Your task to perform on an android device: Go to CNN.com Image 0: 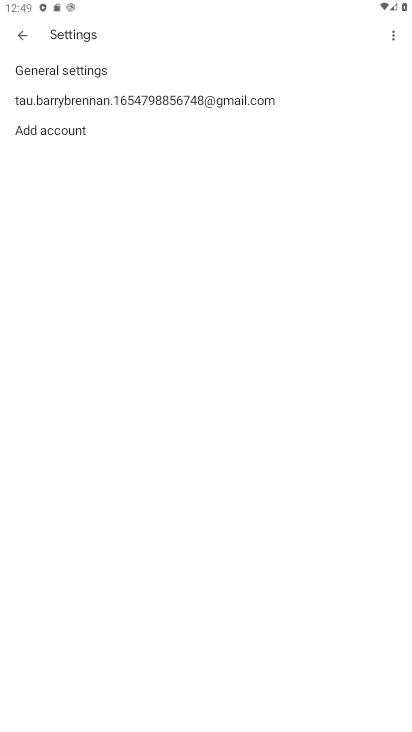
Step 0: press home button
Your task to perform on an android device: Go to CNN.com Image 1: 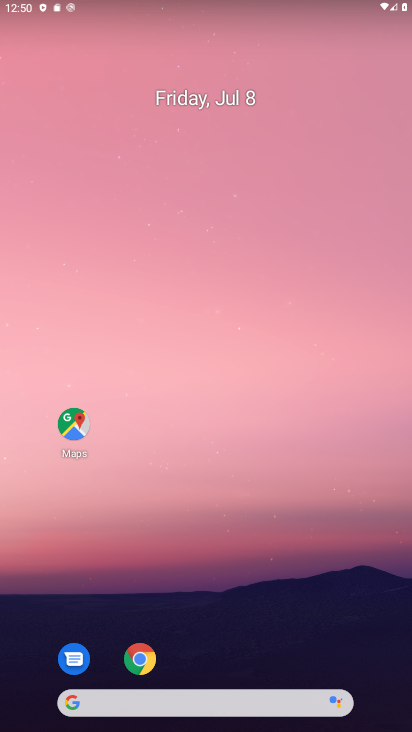
Step 1: drag from (244, 584) to (165, 40)
Your task to perform on an android device: Go to CNN.com Image 2: 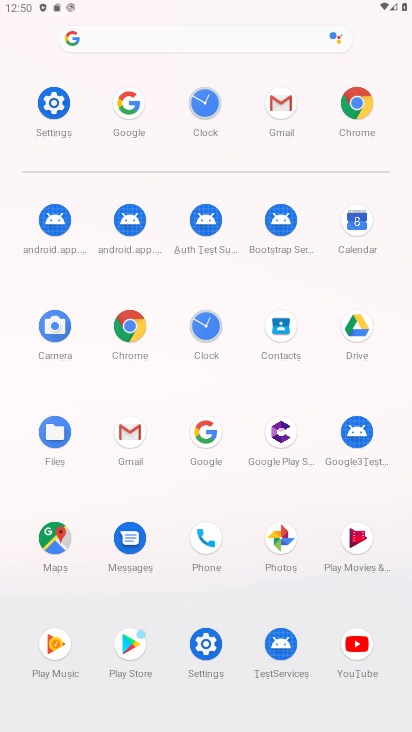
Step 2: click (145, 339)
Your task to perform on an android device: Go to CNN.com Image 3: 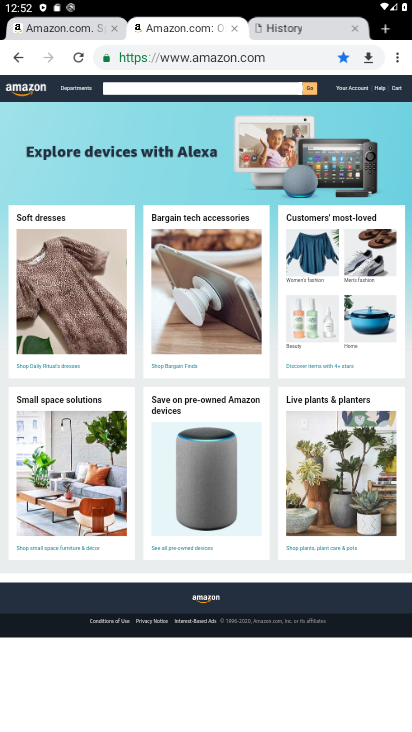
Step 3: press home button
Your task to perform on an android device: Go to CNN.com Image 4: 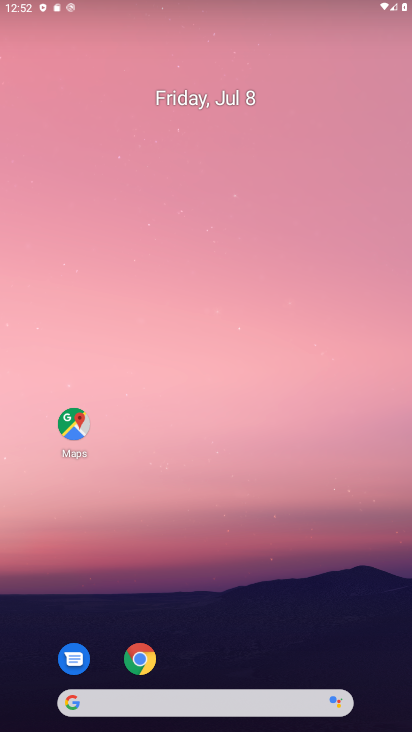
Step 4: drag from (212, 501) to (260, 33)
Your task to perform on an android device: Go to CNN.com Image 5: 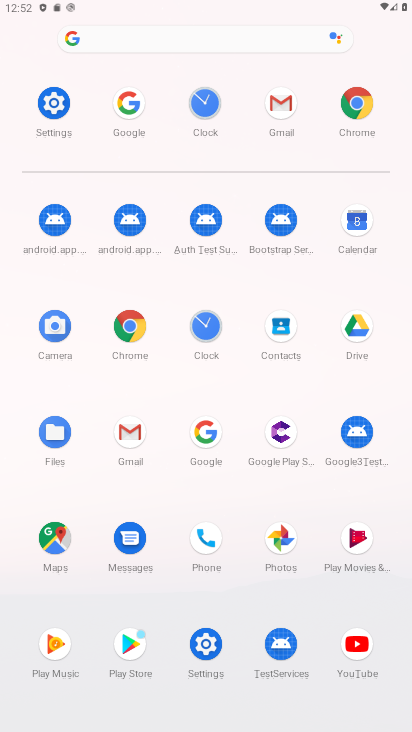
Step 5: click (252, 297)
Your task to perform on an android device: Go to CNN.com Image 6: 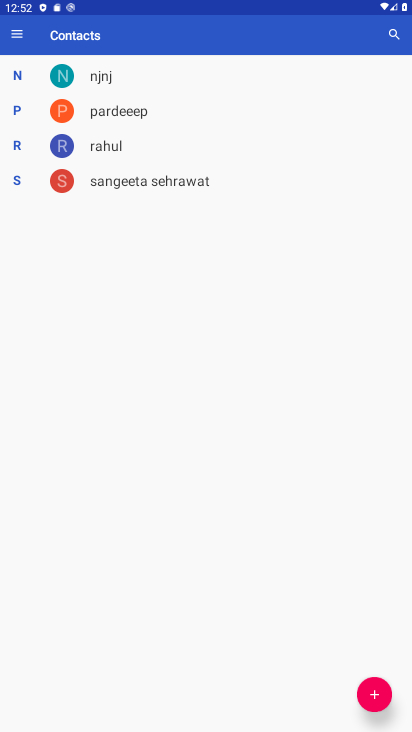
Step 6: press back button
Your task to perform on an android device: Go to CNN.com Image 7: 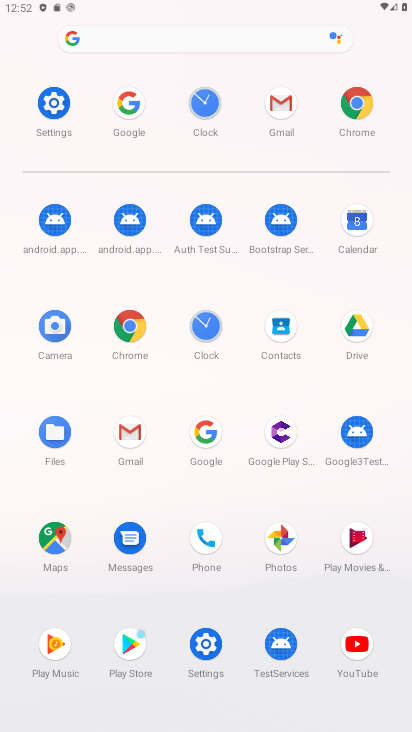
Step 7: click (130, 332)
Your task to perform on an android device: Go to CNN.com Image 8: 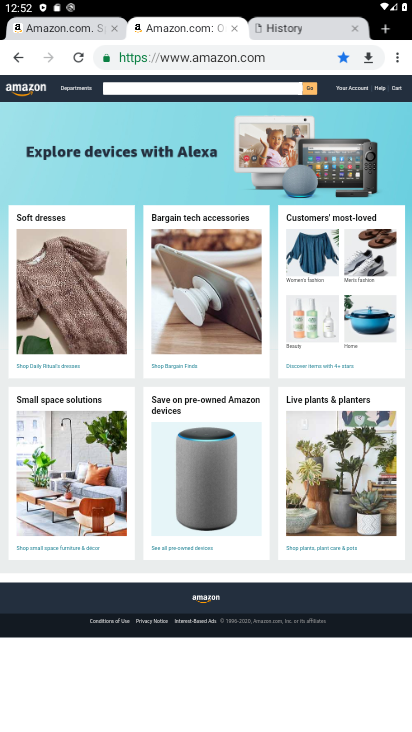
Step 8: click (295, 29)
Your task to perform on an android device: Go to CNN.com Image 9: 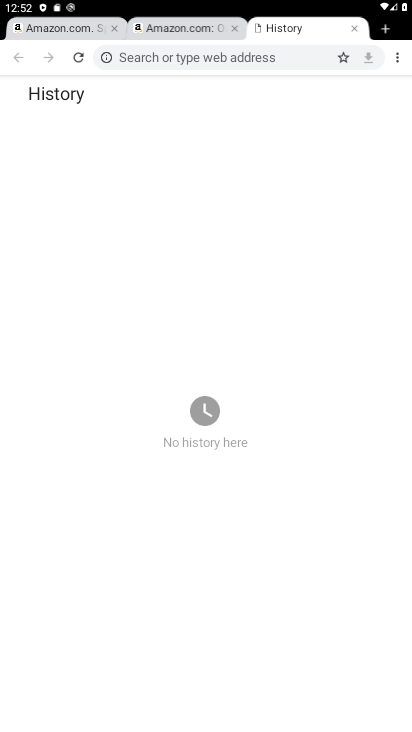
Step 9: click (192, 60)
Your task to perform on an android device: Go to CNN.com Image 10: 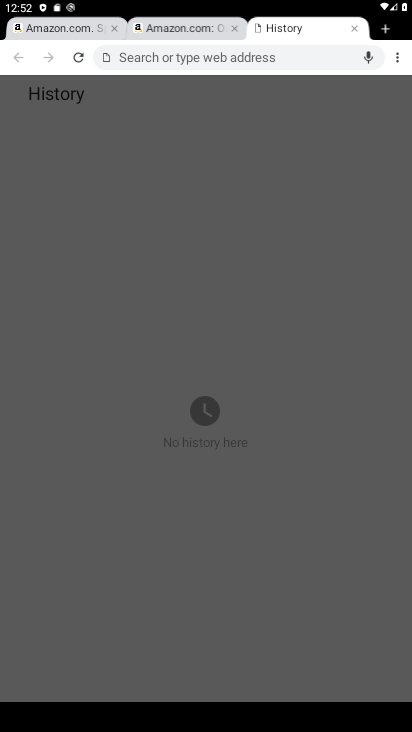
Step 10: type "CNN.com"
Your task to perform on an android device: Go to CNN.com Image 11: 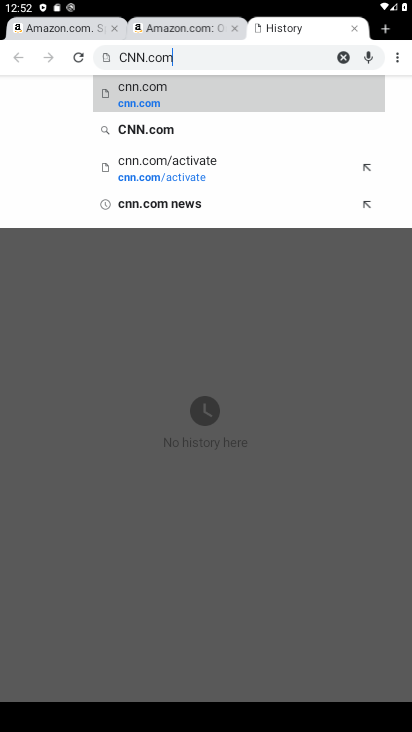
Step 11: type ""
Your task to perform on an android device: Go to CNN.com Image 12: 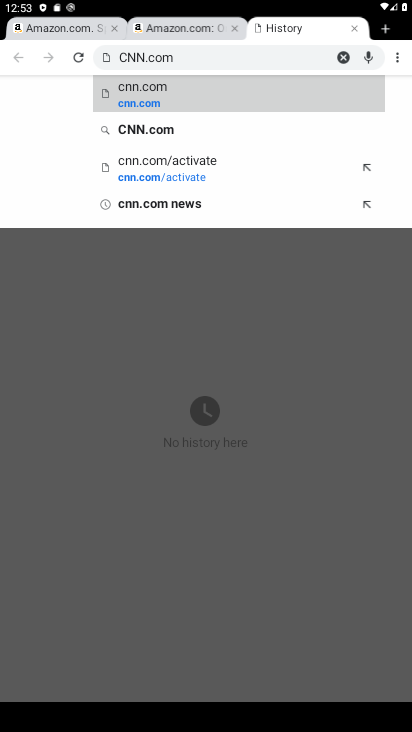
Step 12: click (222, 109)
Your task to perform on an android device: Go to CNN.com Image 13: 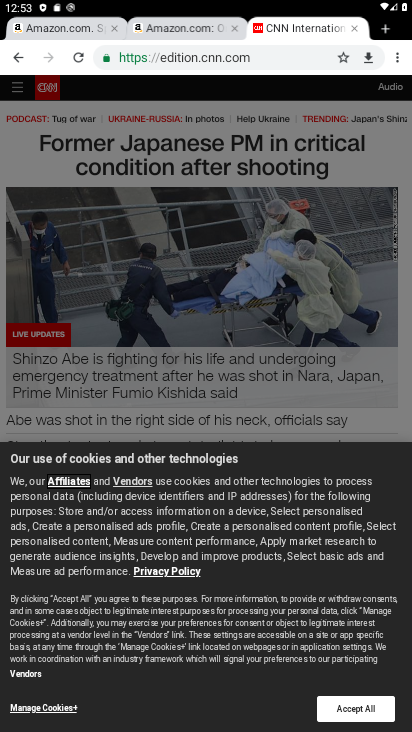
Step 13: task complete